Your task to perform on an android device: see tabs open on other devices in the chrome app Image 0: 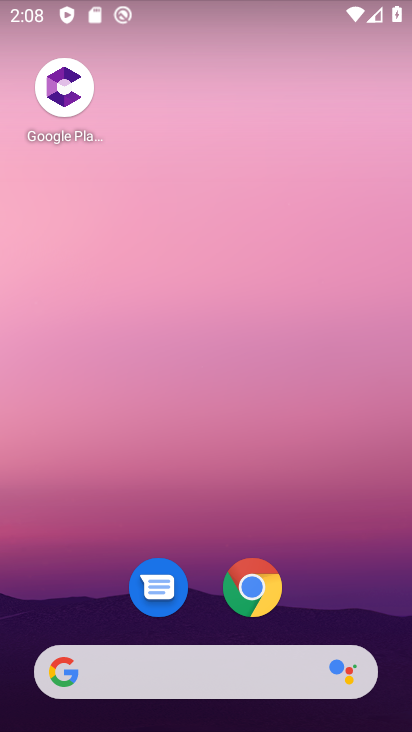
Step 0: click (252, 599)
Your task to perform on an android device: see tabs open on other devices in the chrome app Image 1: 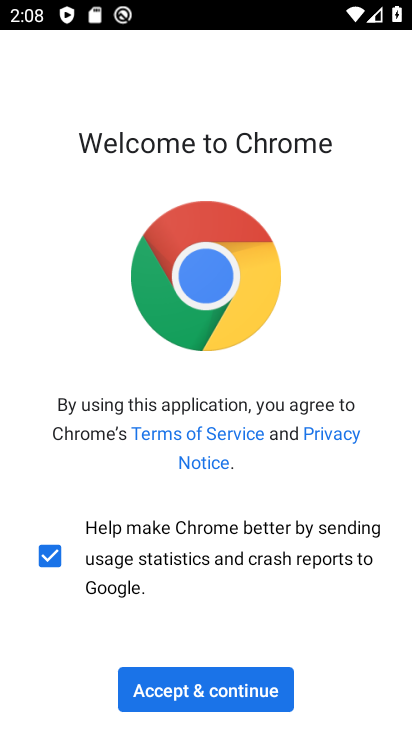
Step 1: click (235, 682)
Your task to perform on an android device: see tabs open on other devices in the chrome app Image 2: 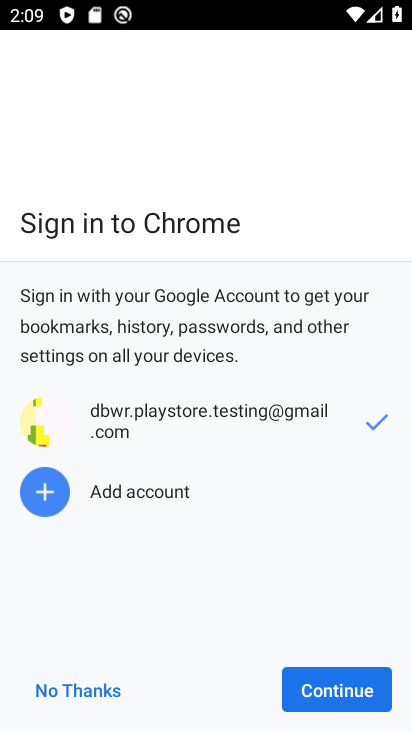
Step 2: click (311, 706)
Your task to perform on an android device: see tabs open on other devices in the chrome app Image 3: 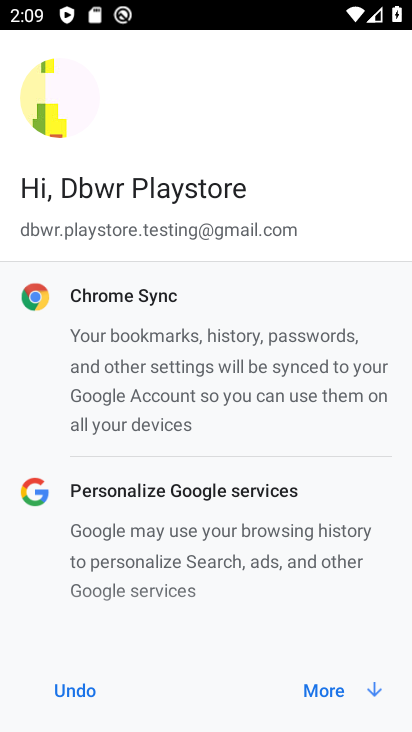
Step 3: click (322, 695)
Your task to perform on an android device: see tabs open on other devices in the chrome app Image 4: 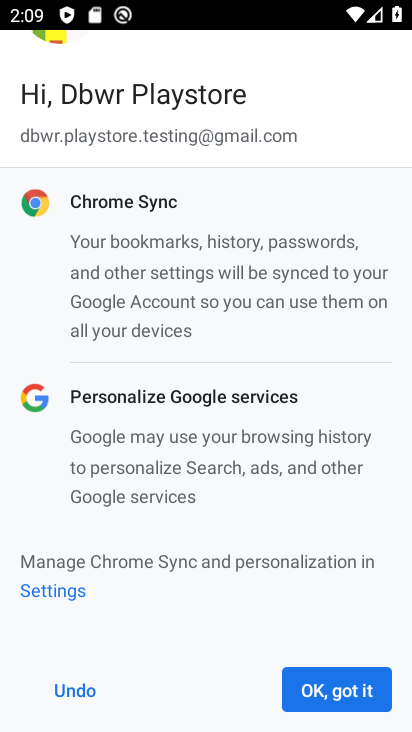
Step 4: click (322, 695)
Your task to perform on an android device: see tabs open on other devices in the chrome app Image 5: 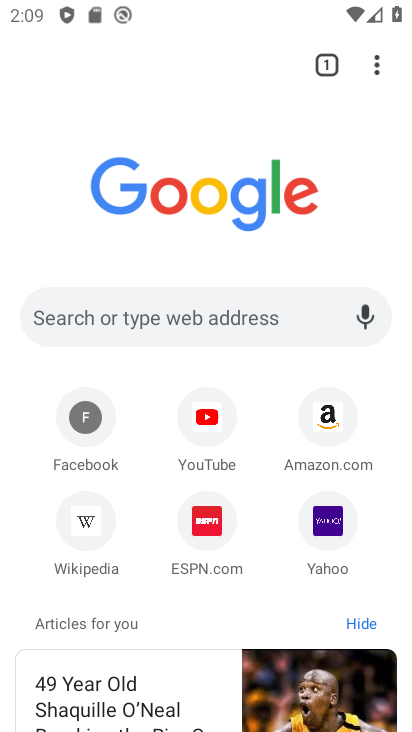
Step 5: task complete